Your task to perform on an android device: Open calendar and show me the third week of next month Image 0: 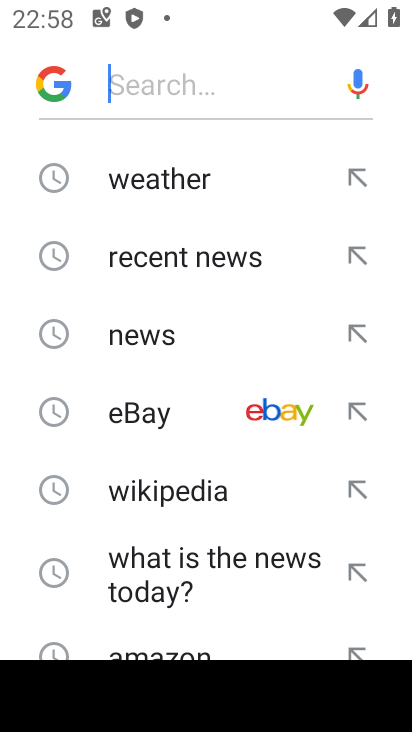
Step 0: press home button
Your task to perform on an android device: Open calendar and show me the third week of next month Image 1: 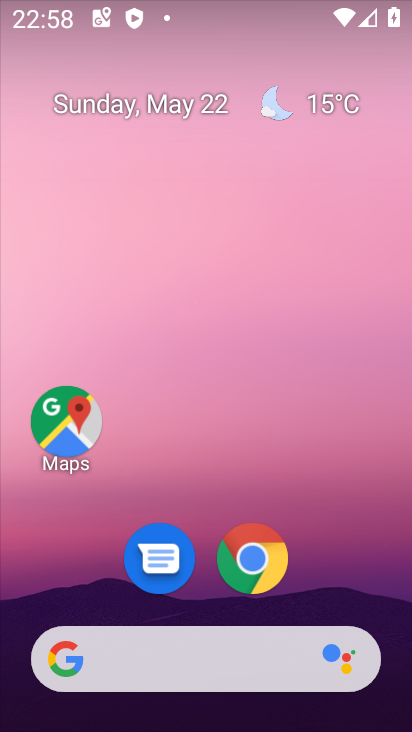
Step 1: drag from (332, 619) to (343, 20)
Your task to perform on an android device: Open calendar and show me the third week of next month Image 2: 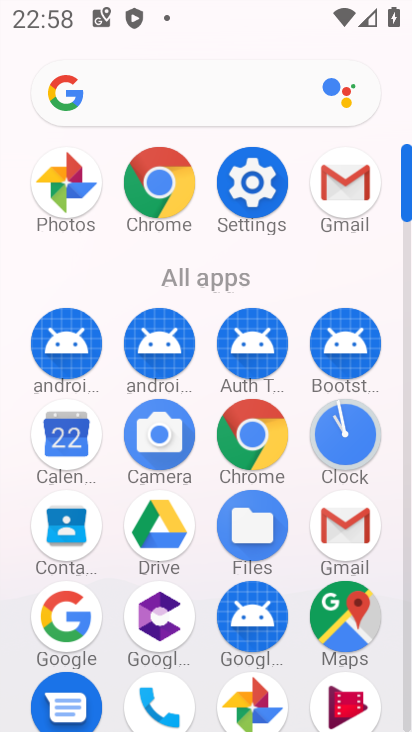
Step 2: click (57, 438)
Your task to perform on an android device: Open calendar and show me the third week of next month Image 3: 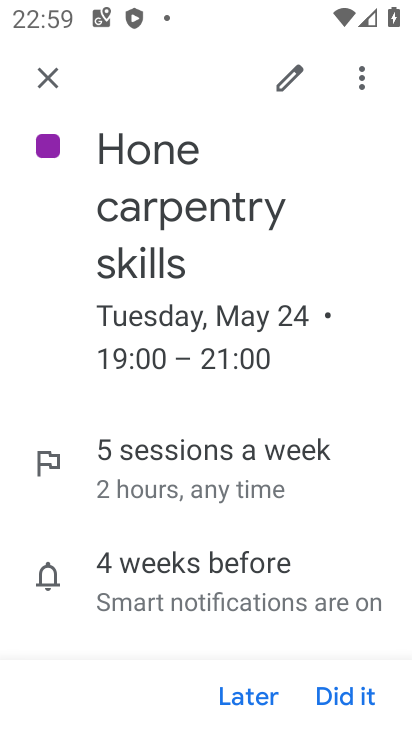
Step 3: click (54, 76)
Your task to perform on an android device: Open calendar and show me the third week of next month Image 4: 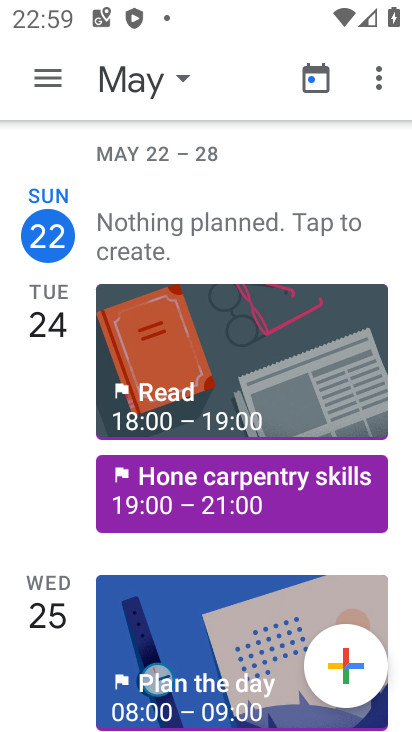
Step 4: click (189, 82)
Your task to perform on an android device: Open calendar and show me the third week of next month Image 5: 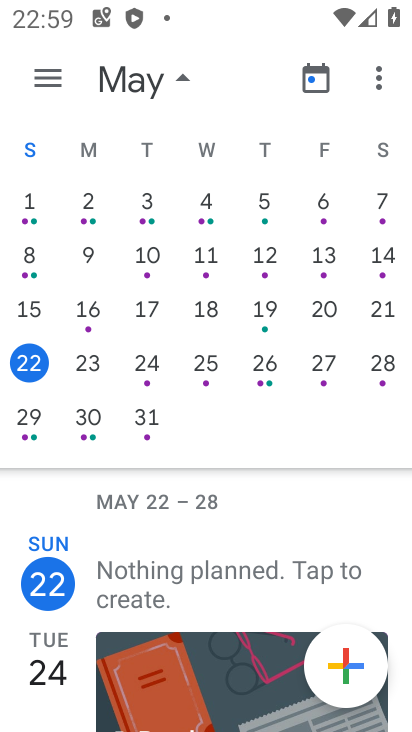
Step 5: drag from (348, 302) to (2, 286)
Your task to perform on an android device: Open calendar and show me the third week of next month Image 6: 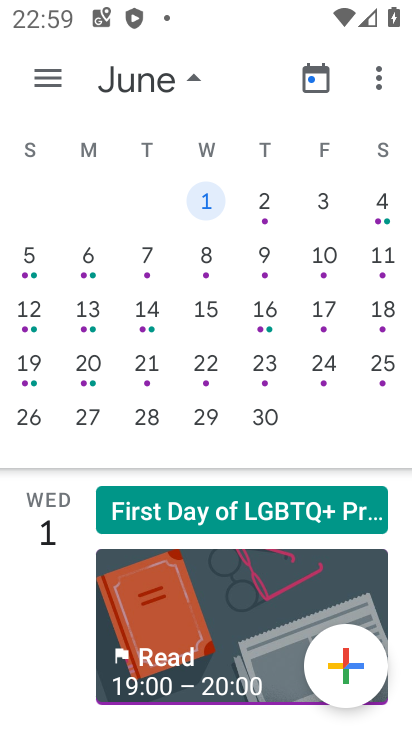
Step 6: click (56, 88)
Your task to perform on an android device: Open calendar and show me the third week of next month Image 7: 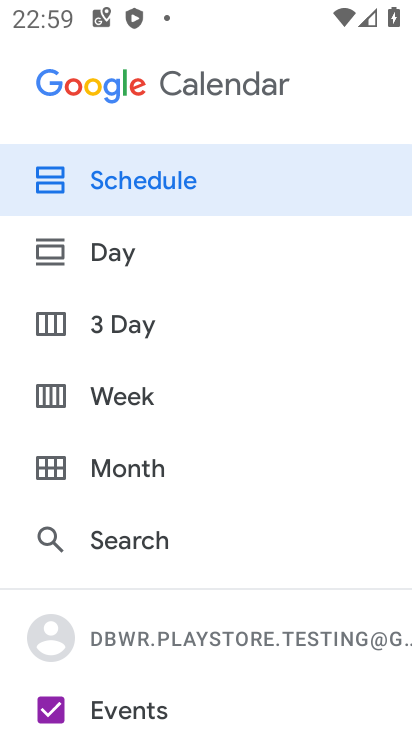
Step 7: click (111, 407)
Your task to perform on an android device: Open calendar and show me the third week of next month Image 8: 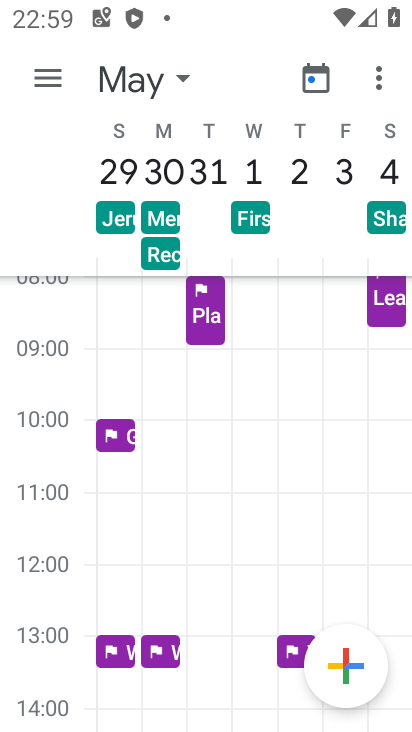
Step 8: task complete